Your task to perform on an android device: Go to Google maps Image 0: 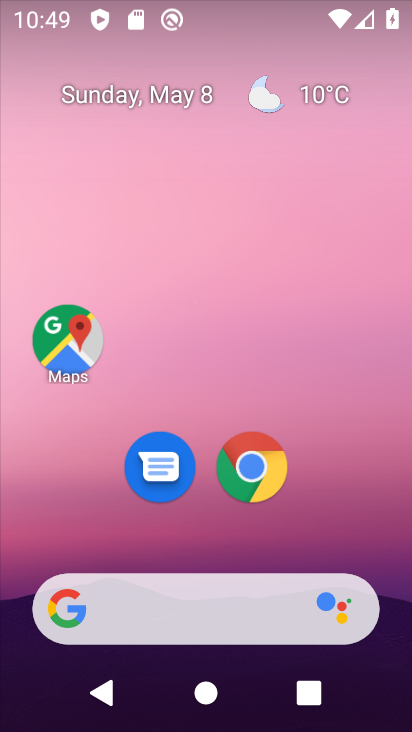
Step 0: click (72, 359)
Your task to perform on an android device: Go to Google maps Image 1: 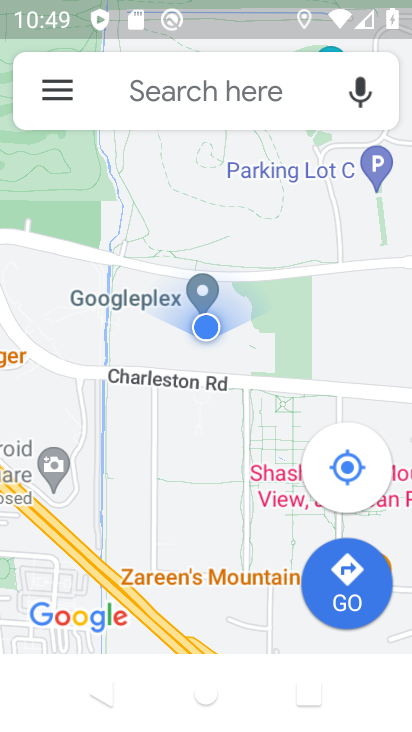
Step 1: task complete